Your task to perform on an android device: Do I have any events this weekend? Image 0: 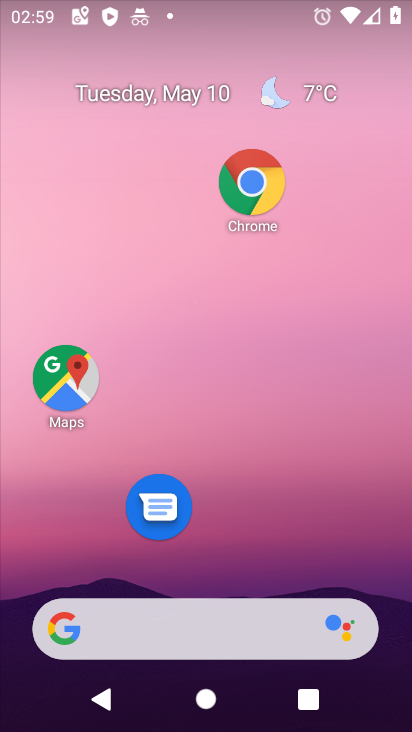
Step 0: drag from (278, 531) to (257, 47)
Your task to perform on an android device: Do I have any events this weekend? Image 1: 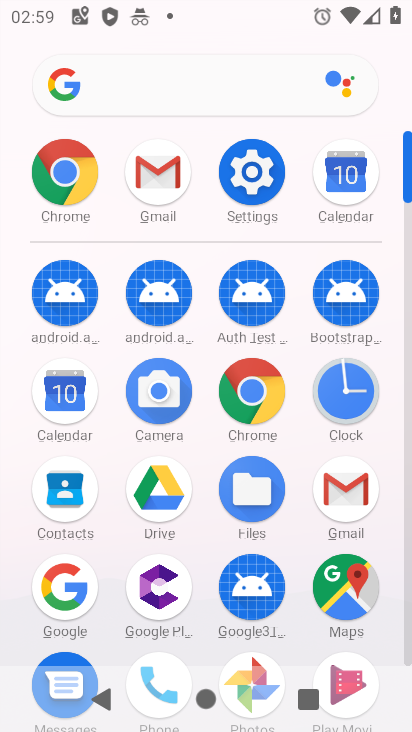
Step 1: click (236, 194)
Your task to perform on an android device: Do I have any events this weekend? Image 2: 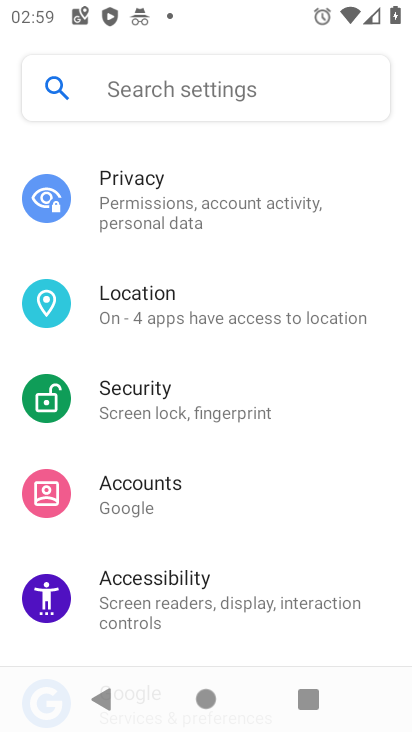
Step 2: press home button
Your task to perform on an android device: Do I have any events this weekend? Image 3: 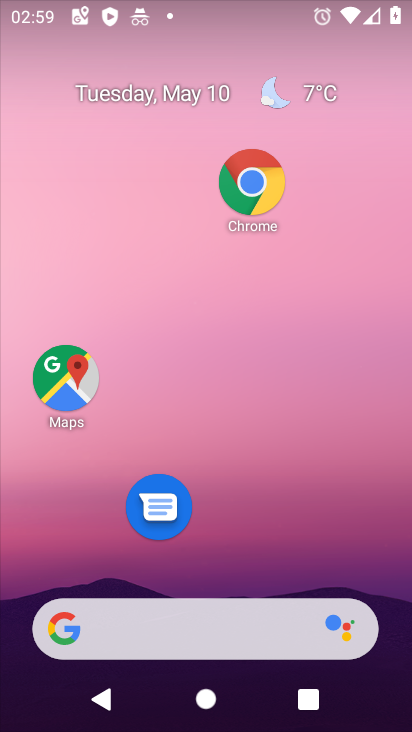
Step 3: drag from (321, 536) to (332, 11)
Your task to perform on an android device: Do I have any events this weekend? Image 4: 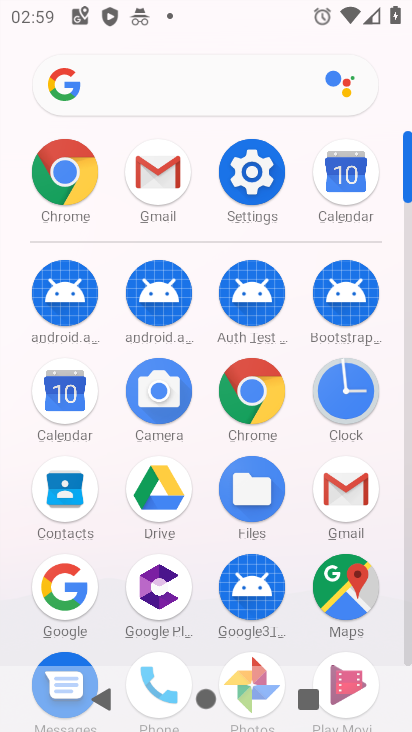
Step 4: click (71, 394)
Your task to perform on an android device: Do I have any events this weekend? Image 5: 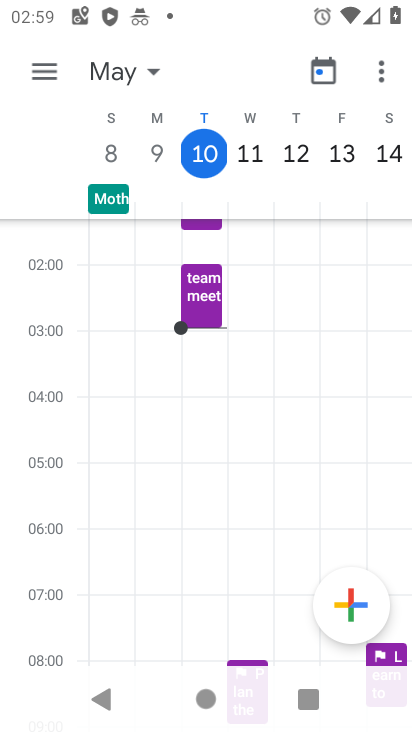
Step 5: task complete